Your task to perform on an android device: Turn on the flashlight Image 0: 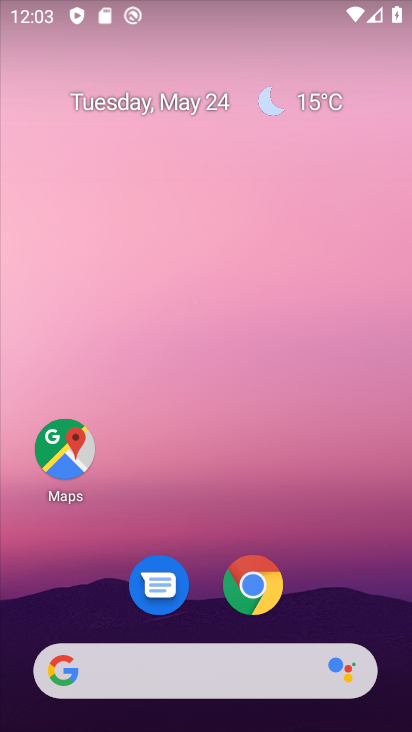
Step 0: drag from (242, 509) to (221, 44)
Your task to perform on an android device: Turn on the flashlight Image 1: 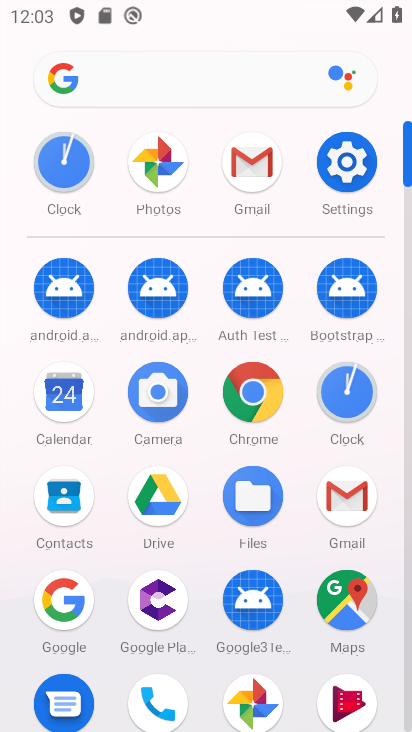
Step 1: click (342, 158)
Your task to perform on an android device: Turn on the flashlight Image 2: 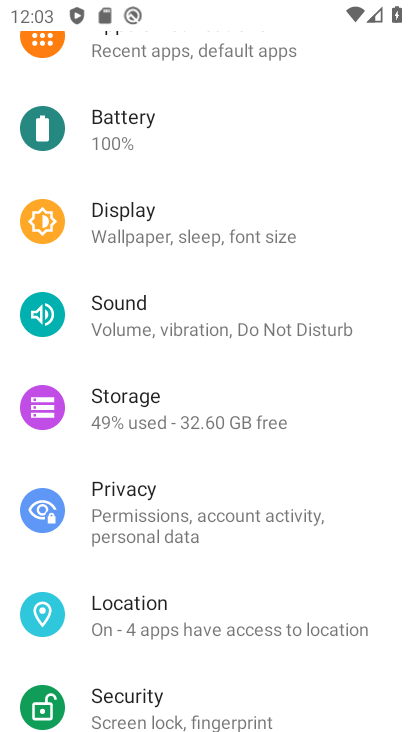
Step 2: drag from (244, 271) to (249, 705)
Your task to perform on an android device: Turn on the flashlight Image 3: 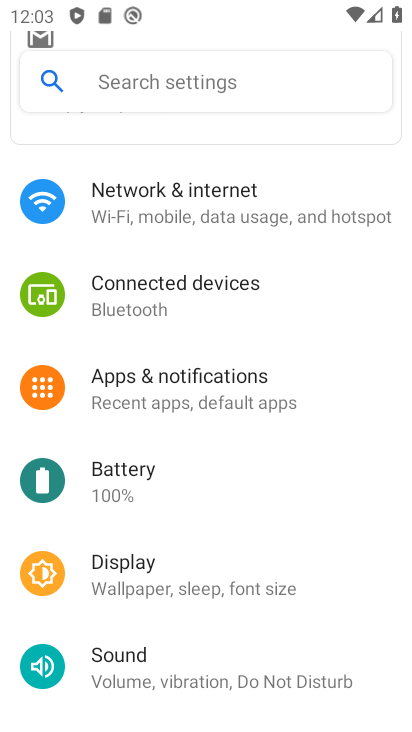
Step 3: drag from (247, 247) to (236, 556)
Your task to perform on an android device: Turn on the flashlight Image 4: 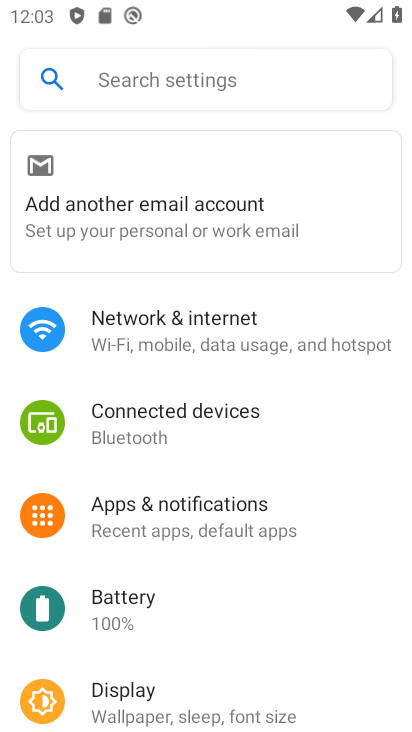
Step 4: click (252, 71)
Your task to perform on an android device: Turn on the flashlight Image 5: 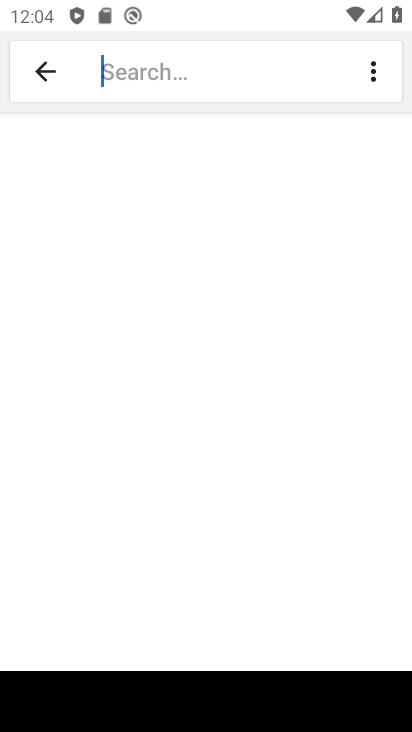
Step 5: type "Flashlight"
Your task to perform on an android device: Turn on the flashlight Image 6: 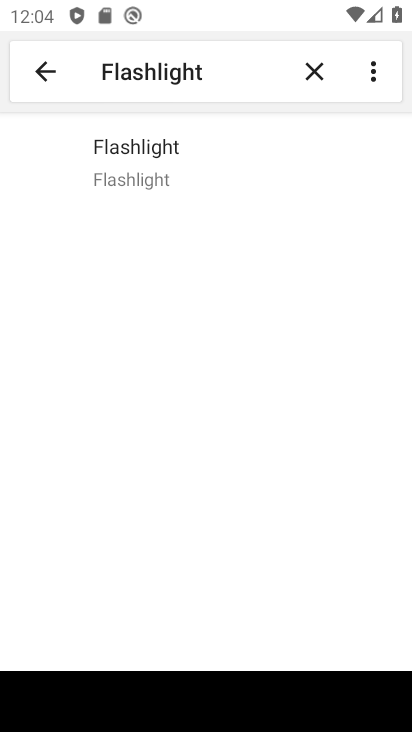
Step 6: click (148, 168)
Your task to perform on an android device: Turn on the flashlight Image 7: 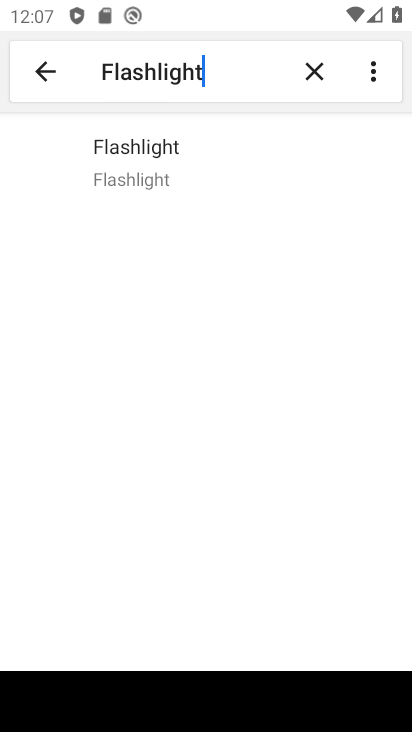
Step 7: task complete